Your task to perform on an android device: open chrome privacy settings Image 0: 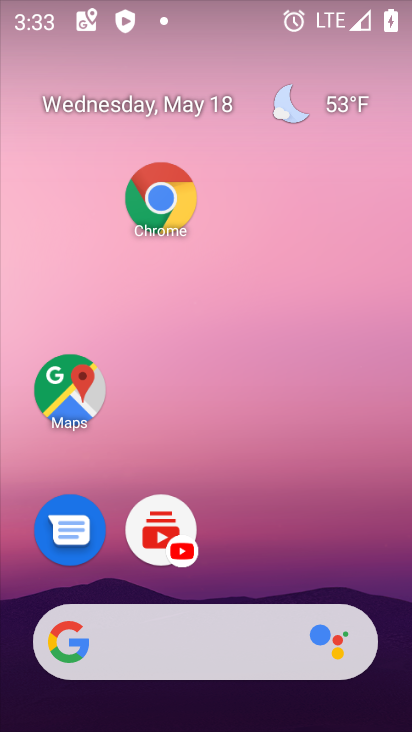
Step 0: drag from (266, 680) to (179, 107)
Your task to perform on an android device: open chrome privacy settings Image 1: 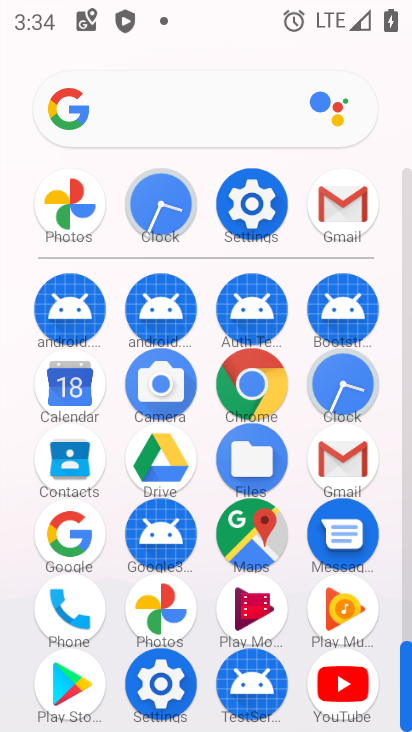
Step 1: click (249, 392)
Your task to perform on an android device: open chrome privacy settings Image 2: 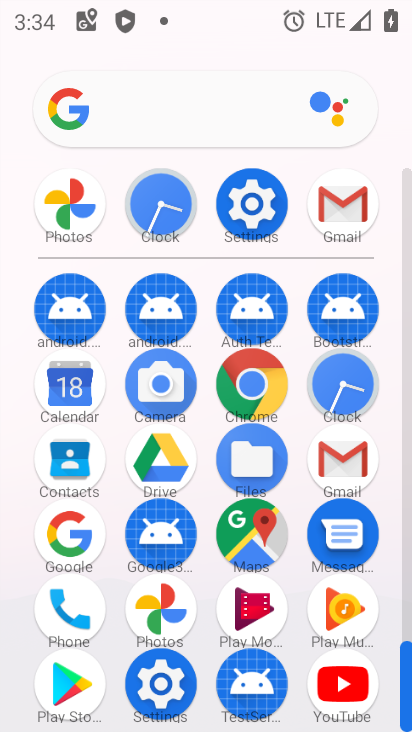
Step 2: click (250, 391)
Your task to perform on an android device: open chrome privacy settings Image 3: 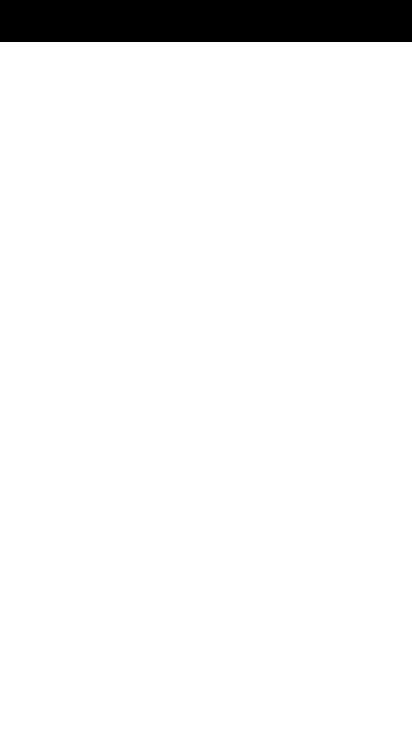
Step 3: click (250, 391)
Your task to perform on an android device: open chrome privacy settings Image 4: 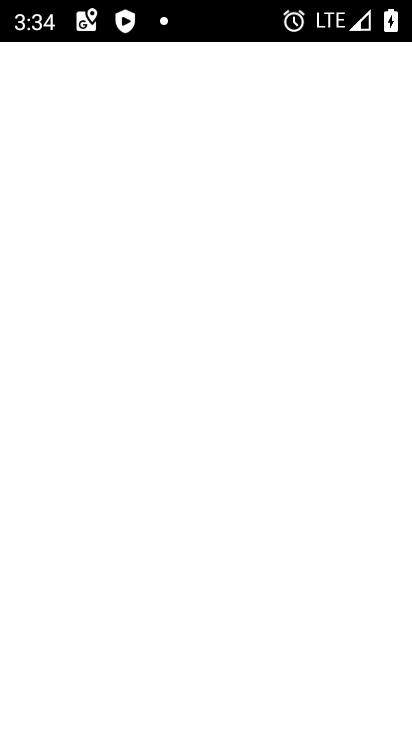
Step 4: click (251, 390)
Your task to perform on an android device: open chrome privacy settings Image 5: 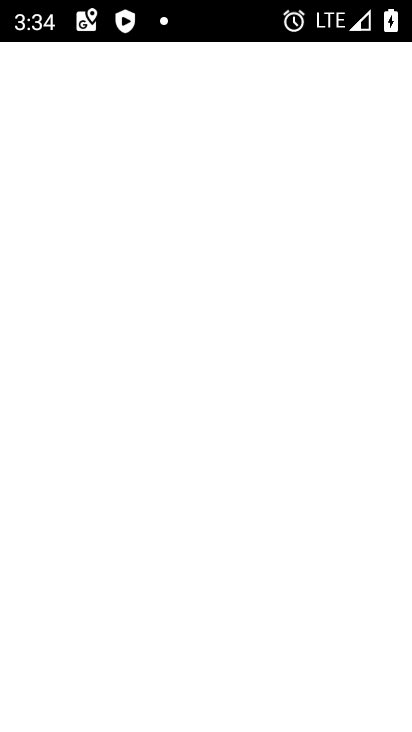
Step 5: click (251, 390)
Your task to perform on an android device: open chrome privacy settings Image 6: 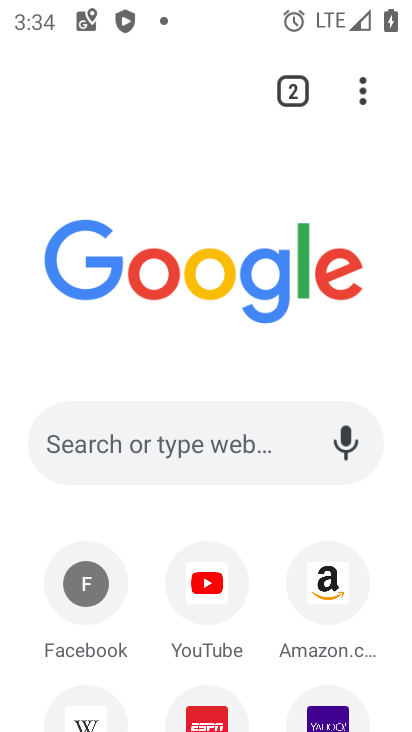
Step 6: click (357, 91)
Your task to perform on an android device: open chrome privacy settings Image 7: 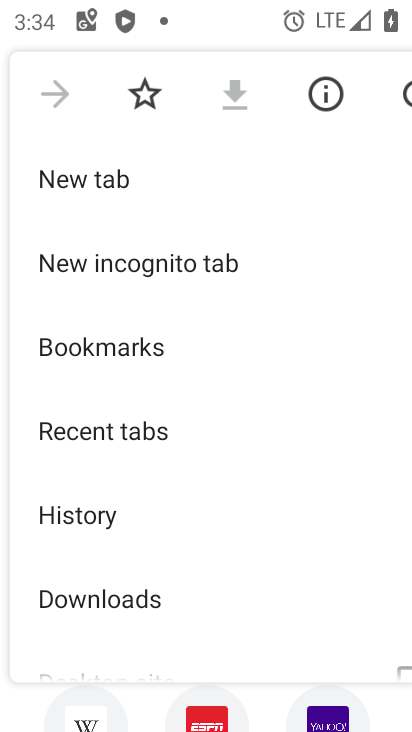
Step 7: drag from (148, 450) to (128, 160)
Your task to perform on an android device: open chrome privacy settings Image 8: 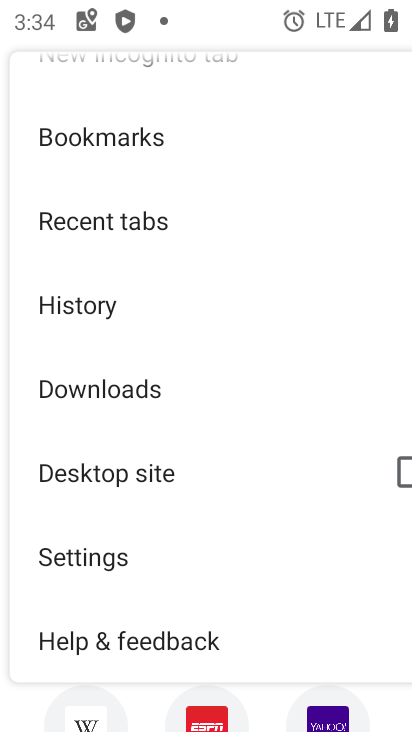
Step 8: drag from (141, 120) to (133, 69)
Your task to perform on an android device: open chrome privacy settings Image 9: 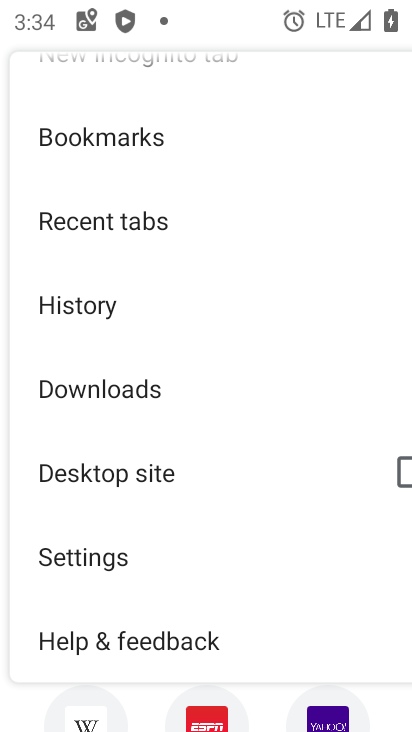
Step 9: click (64, 561)
Your task to perform on an android device: open chrome privacy settings Image 10: 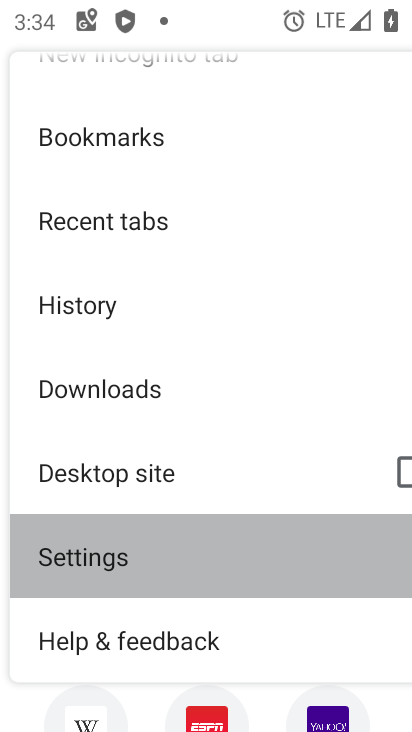
Step 10: click (65, 550)
Your task to perform on an android device: open chrome privacy settings Image 11: 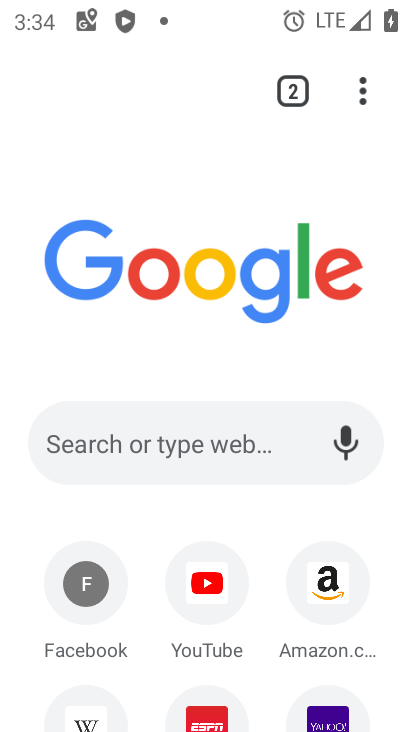
Step 11: click (66, 548)
Your task to perform on an android device: open chrome privacy settings Image 12: 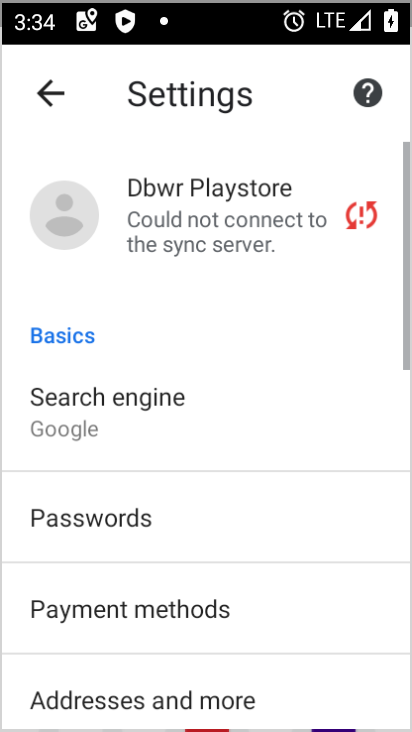
Step 12: click (66, 548)
Your task to perform on an android device: open chrome privacy settings Image 13: 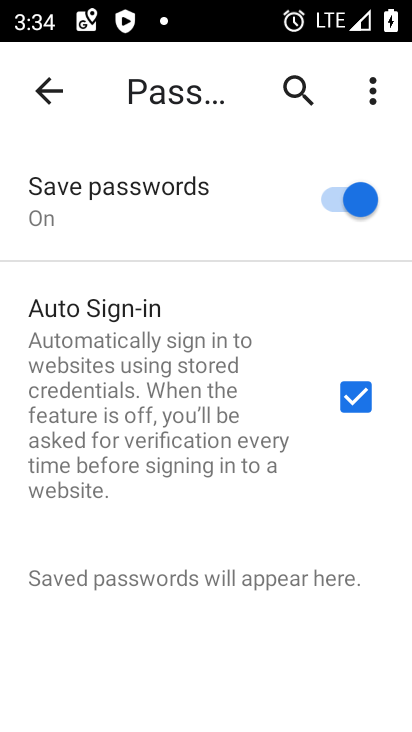
Step 13: click (41, 75)
Your task to perform on an android device: open chrome privacy settings Image 14: 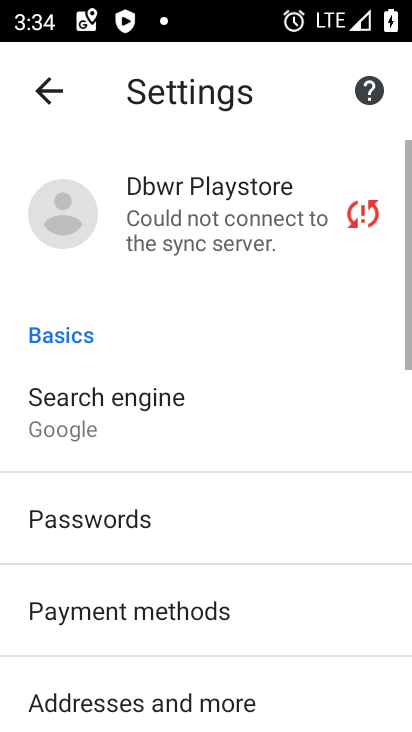
Step 14: drag from (167, 484) to (120, 128)
Your task to perform on an android device: open chrome privacy settings Image 15: 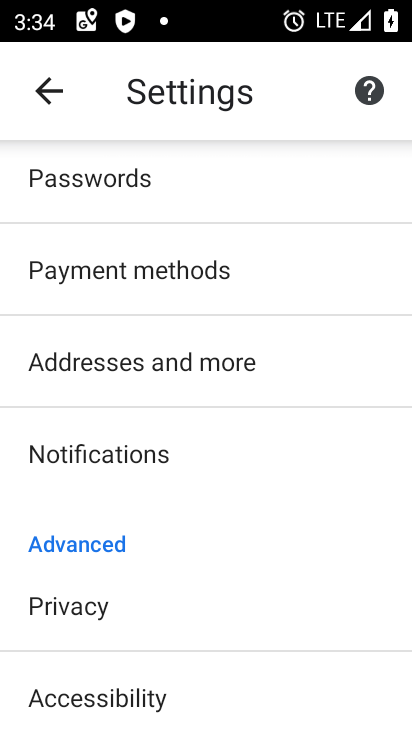
Step 15: drag from (126, 599) to (90, 215)
Your task to perform on an android device: open chrome privacy settings Image 16: 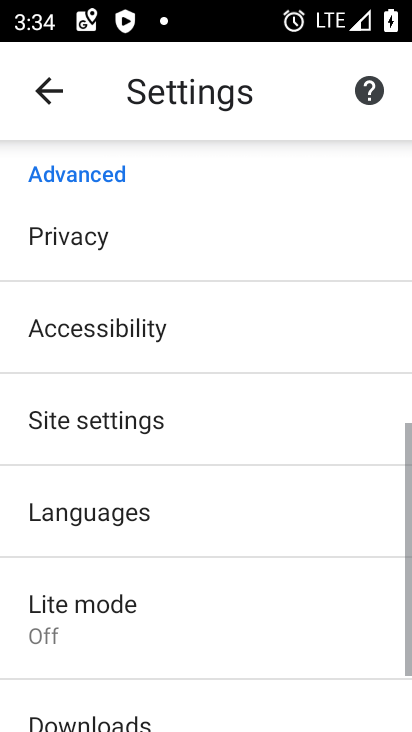
Step 16: drag from (184, 535) to (136, 183)
Your task to perform on an android device: open chrome privacy settings Image 17: 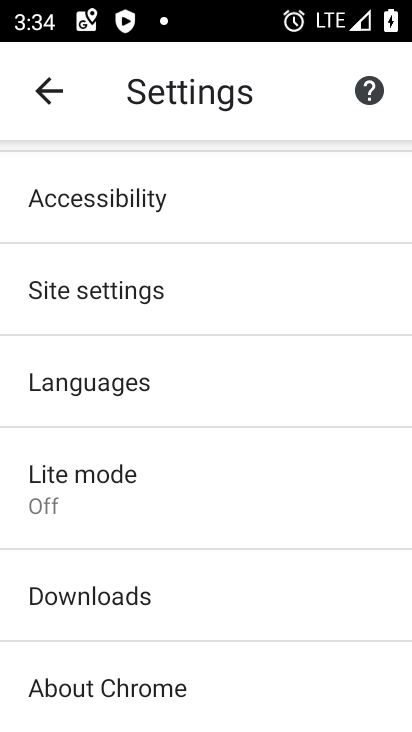
Step 17: drag from (82, 264) to (92, 523)
Your task to perform on an android device: open chrome privacy settings Image 18: 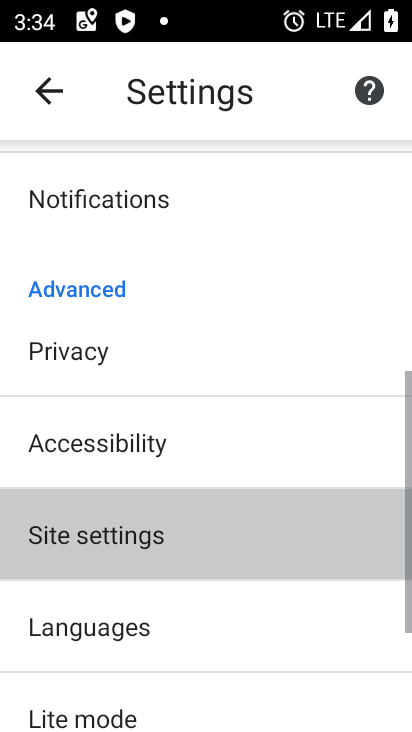
Step 18: drag from (73, 272) to (90, 495)
Your task to perform on an android device: open chrome privacy settings Image 19: 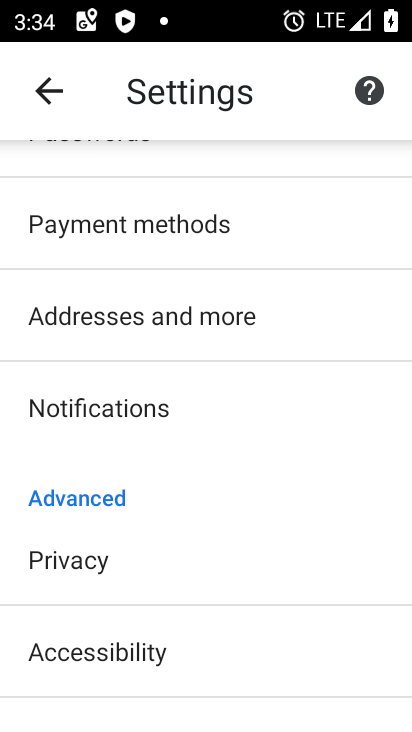
Step 19: click (70, 574)
Your task to perform on an android device: open chrome privacy settings Image 20: 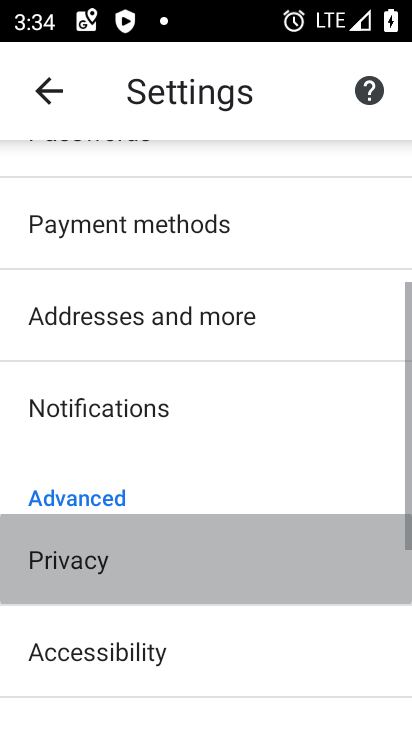
Step 20: click (69, 562)
Your task to perform on an android device: open chrome privacy settings Image 21: 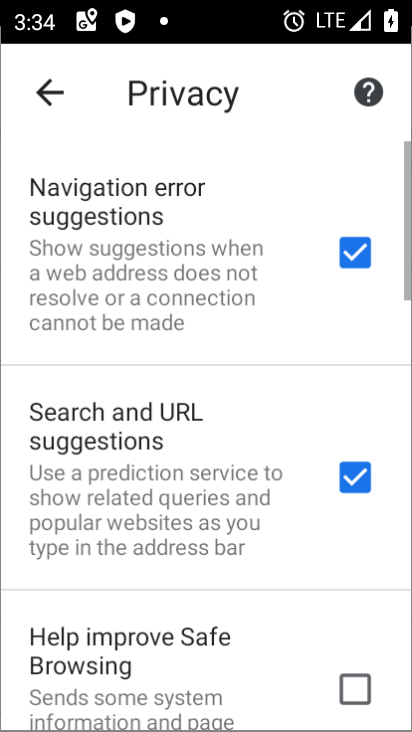
Step 21: click (72, 557)
Your task to perform on an android device: open chrome privacy settings Image 22: 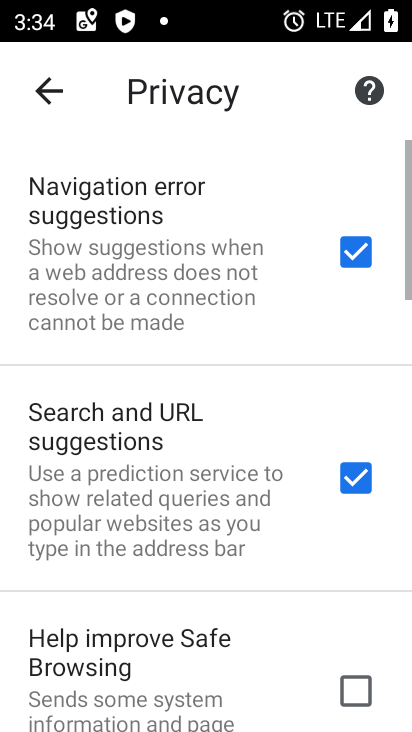
Step 22: click (72, 557)
Your task to perform on an android device: open chrome privacy settings Image 23: 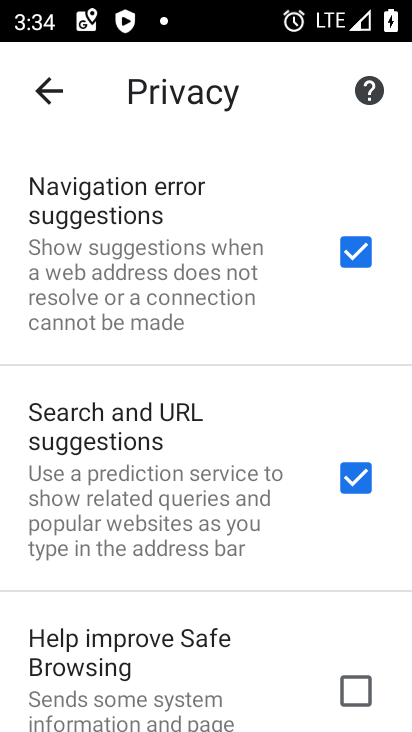
Step 23: task complete